Your task to perform on an android device: turn on the 12-hour format for clock Image 0: 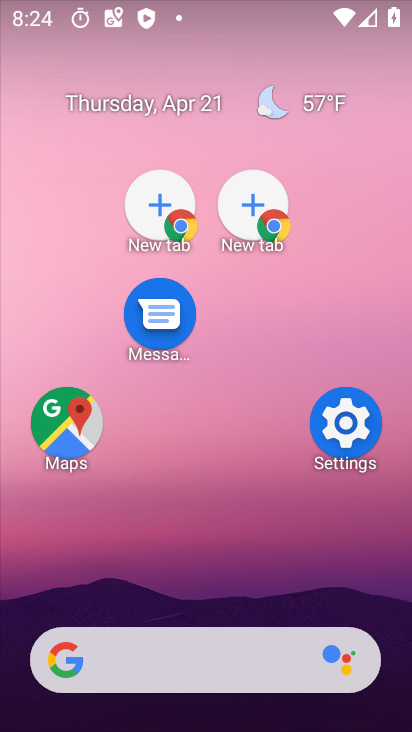
Step 0: drag from (246, 606) to (209, 143)
Your task to perform on an android device: turn on the 12-hour format for clock Image 1: 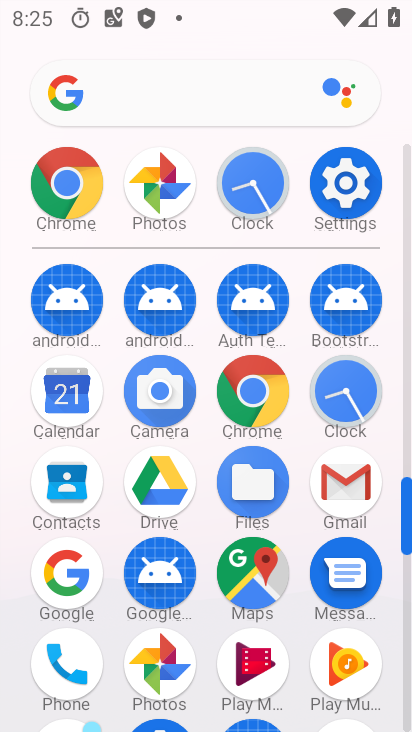
Step 1: click (340, 407)
Your task to perform on an android device: turn on the 12-hour format for clock Image 2: 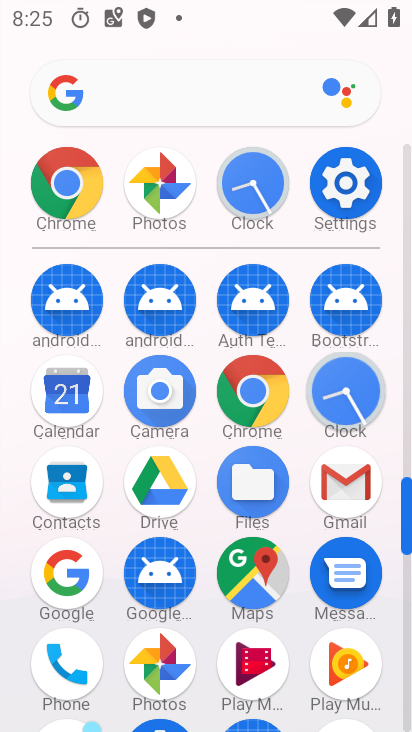
Step 2: click (340, 407)
Your task to perform on an android device: turn on the 12-hour format for clock Image 3: 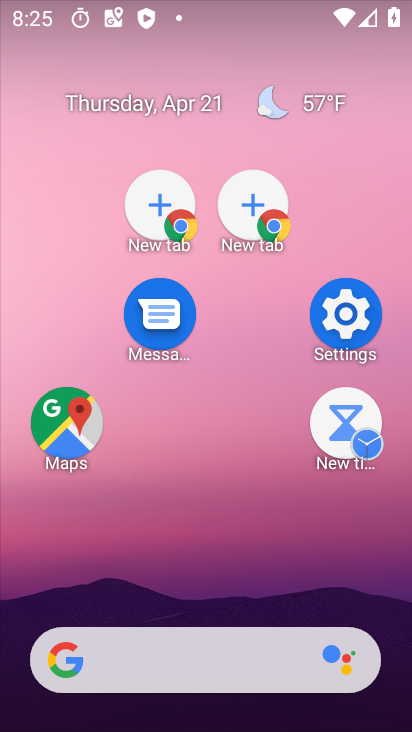
Step 3: drag from (307, 640) to (142, 121)
Your task to perform on an android device: turn on the 12-hour format for clock Image 4: 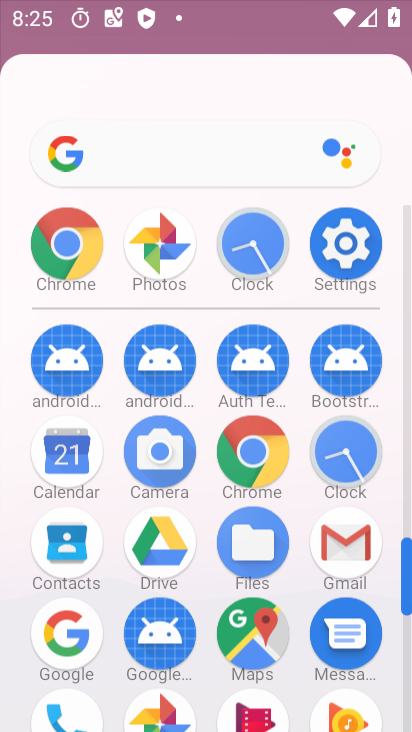
Step 4: drag from (329, 549) to (236, 71)
Your task to perform on an android device: turn on the 12-hour format for clock Image 5: 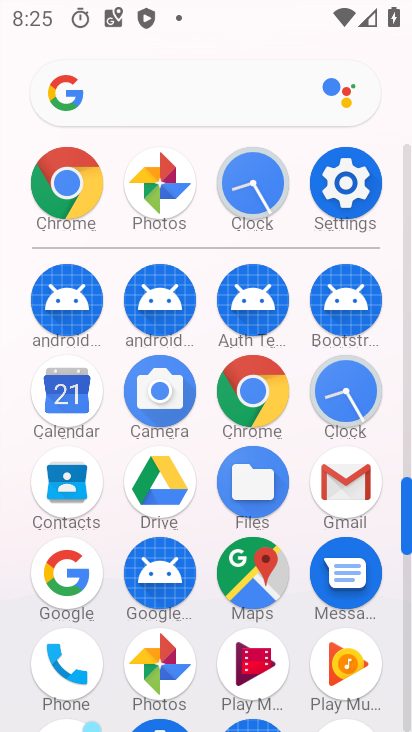
Step 5: click (337, 405)
Your task to perform on an android device: turn on the 12-hour format for clock Image 6: 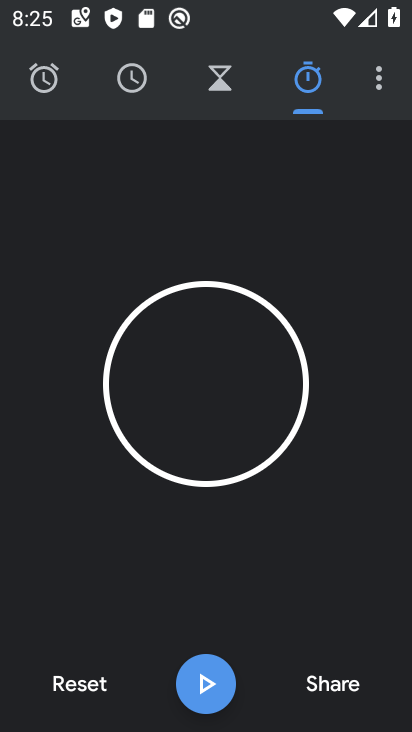
Step 6: drag from (376, 65) to (391, 106)
Your task to perform on an android device: turn on the 12-hour format for clock Image 7: 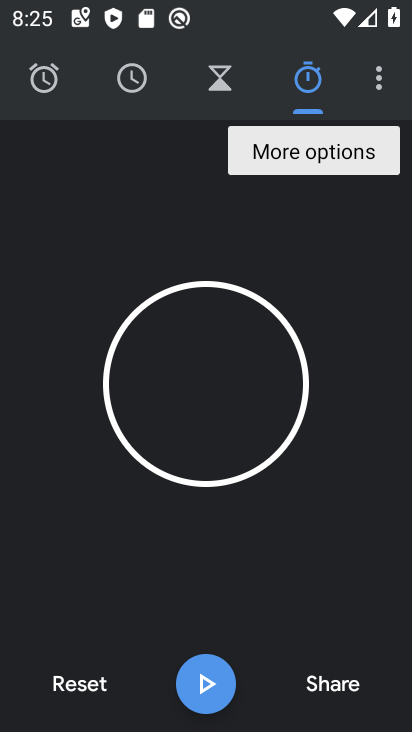
Step 7: click (375, 75)
Your task to perform on an android device: turn on the 12-hour format for clock Image 8: 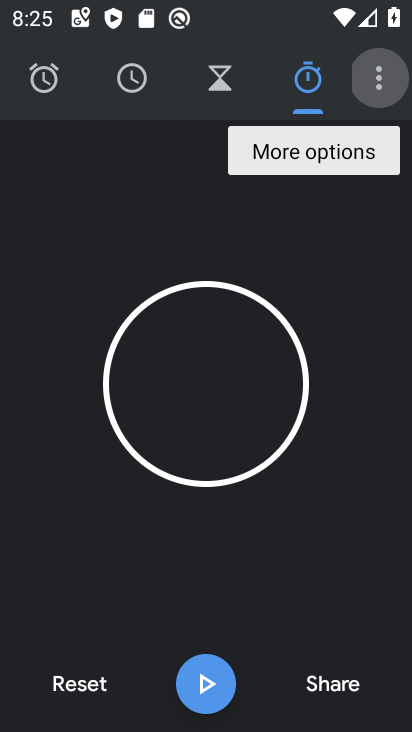
Step 8: click (376, 76)
Your task to perform on an android device: turn on the 12-hour format for clock Image 9: 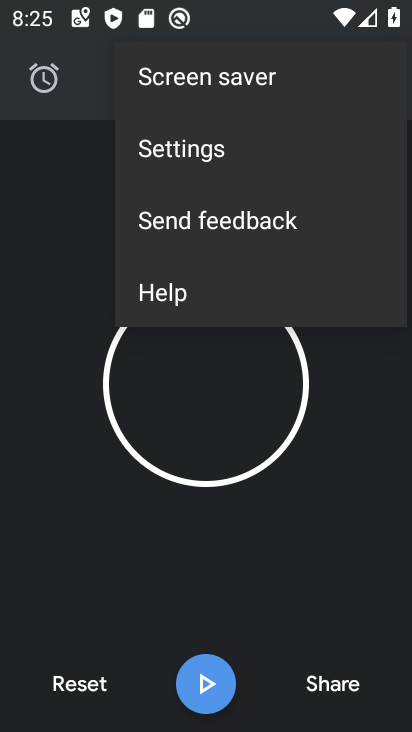
Step 9: click (378, 77)
Your task to perform on an android device: turn on the 12-hour format for clock Image 10: 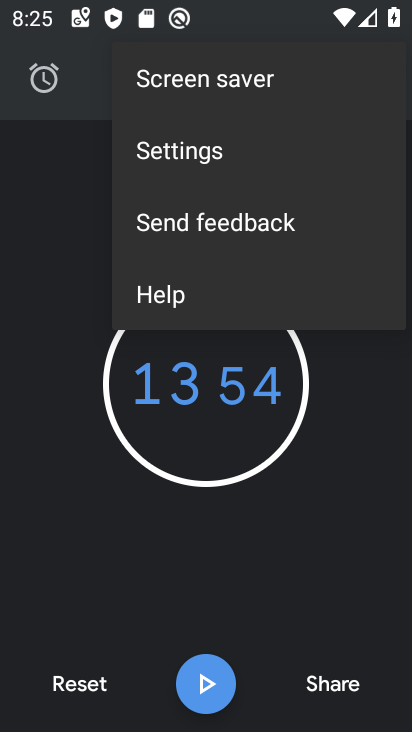
Step 10: click (385, 79)
Your task to perform on an android device: turn on the 12-hour format for clock Image 11: 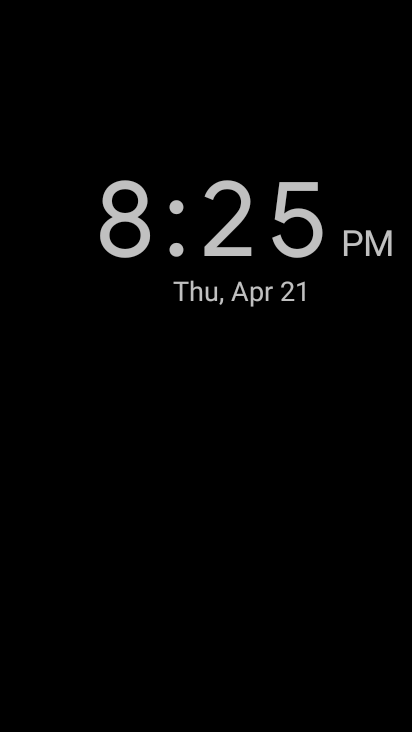
Step 11: press home button
Your task to perform on an android device: turn on the 12-hour format for clock Image 12: 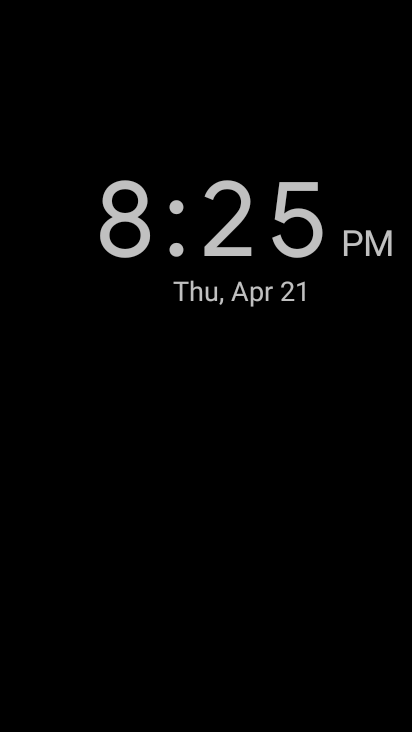
Step 12: press home button
Your task to perform on an android device: turn on the 12-hour format for clock Image 13: 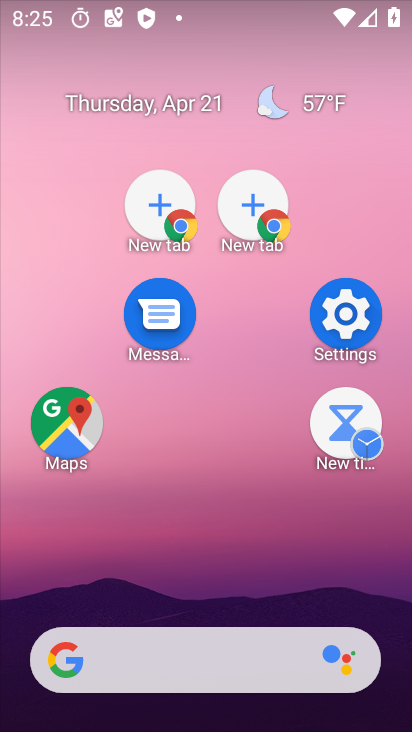
Step 13: drag from (237, 712) to (248, 66)
Your task to perform on an android device: turn on the 12-hour format for clock Image 14: 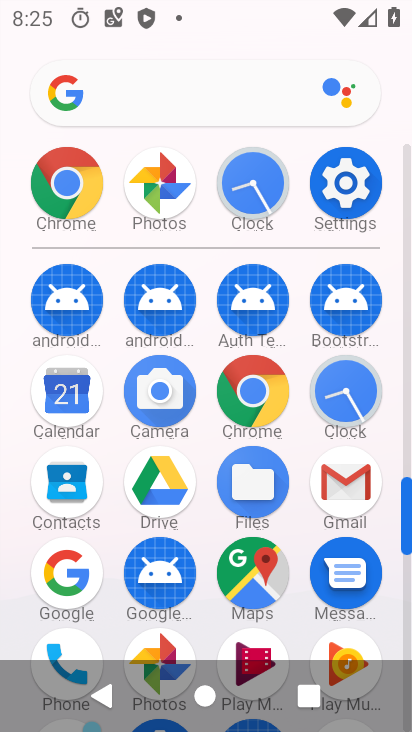
Step 14: click (337, 388)
Your task to perform on an android device: turn on the 12-hour format for clock Image 15: 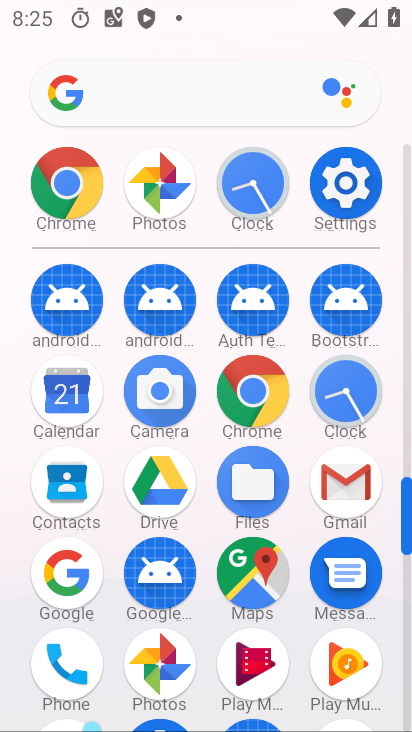
Step 15: click (337, 388)
Your task to perform on an android device: turn on the 12-hour format for clock Image 16: 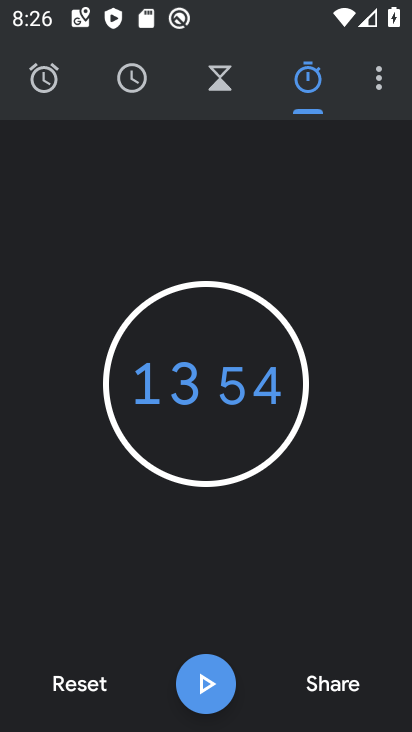
Step 16: drag from (375, 86) to (168, 157)
Your task to perform on an android device: turn on the 12-hour format for clock Image 17: 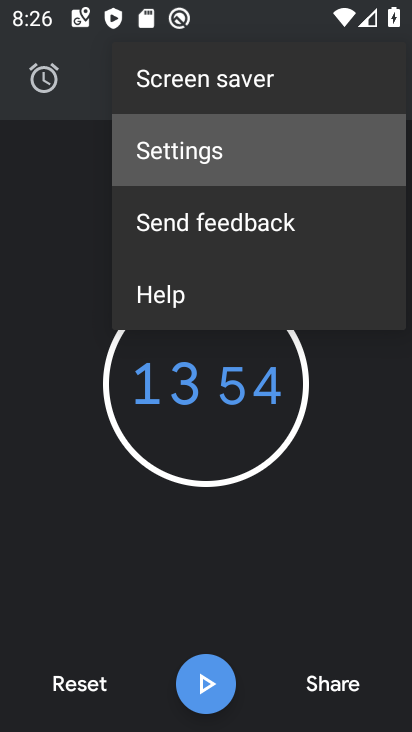
Step 17: click (168, 157)
Your task to perform on an android device: turn on the 12-hour format for clock Image 18: 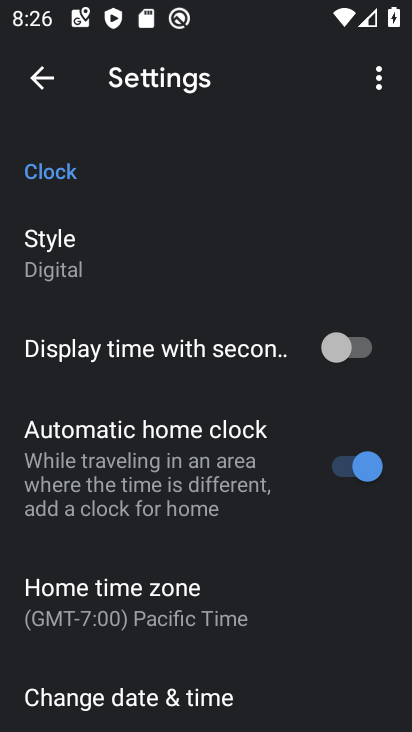
Step 18: drag from (195, 514) to (113, 149)
Your task to perform on an android device: turn on the 12-hour format for clock Image 19: 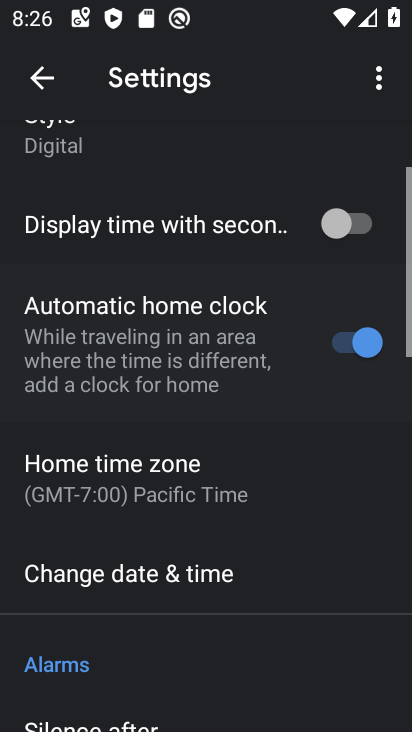
Step 19: drag from (164, 479) to (149, 155)
Your task to perform on an android device: turn on the 12-hour format for clock Image 20: 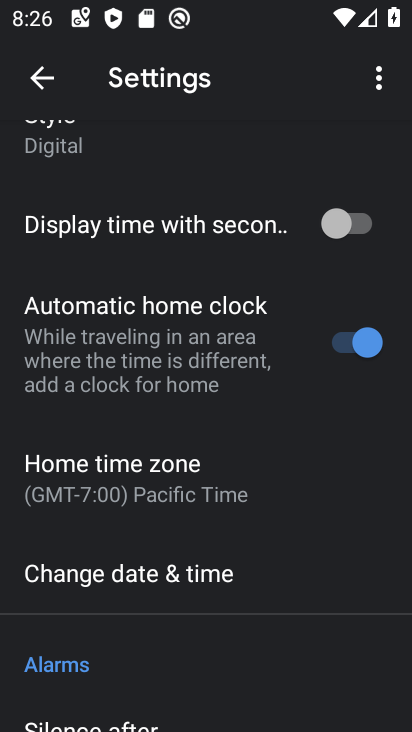
Step 20: drag from (171, 390) to (242, 543)
Your task to perform on an android device: turn on the 12-hour format for clock Image 21: 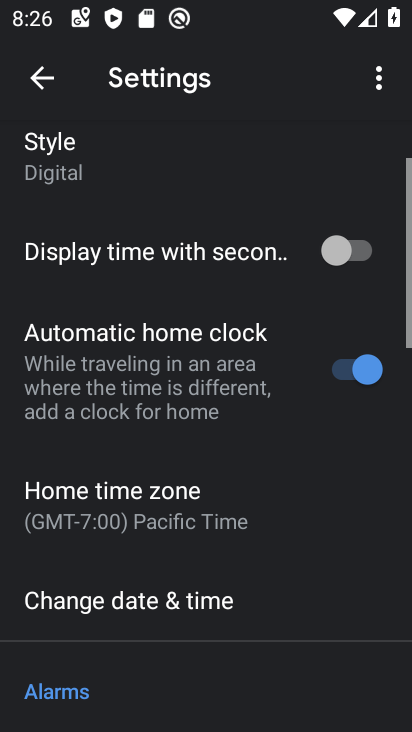
Step 21: drag from (196, 478) to (209, 607)
Your task to perform on an android device: turn on the 12-hour format for clock Image 22: 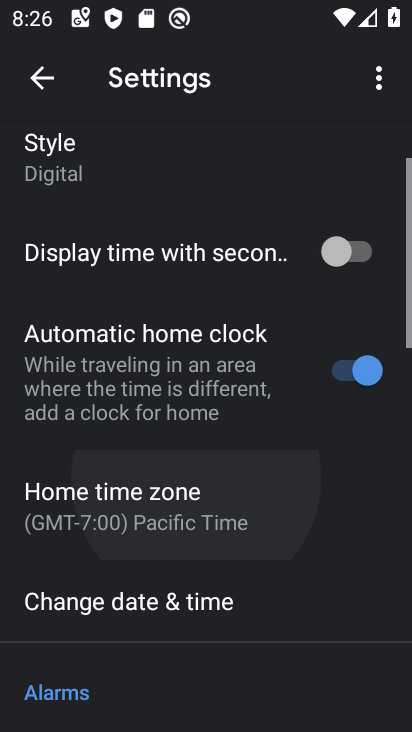
Step 22: drag from (174, 301) to (255, 651)
Your task to perform on an android device: turn on the 12-hour format for clock Image 23: 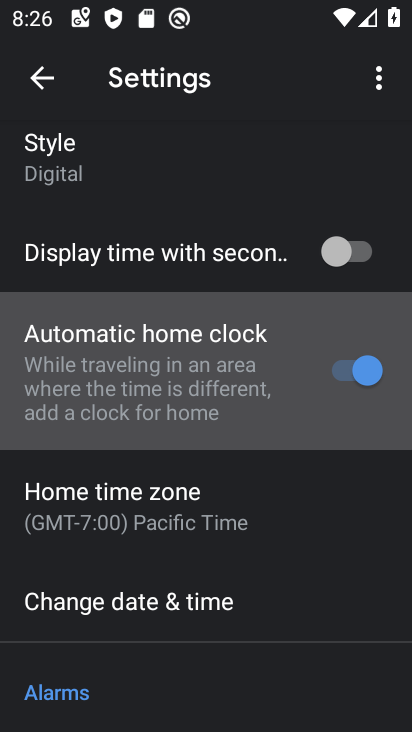
Step 23: drag from (246, 464) to (245, 624)
Your task to perform on an android device: turn on the 12-hour format for clock Image 24: 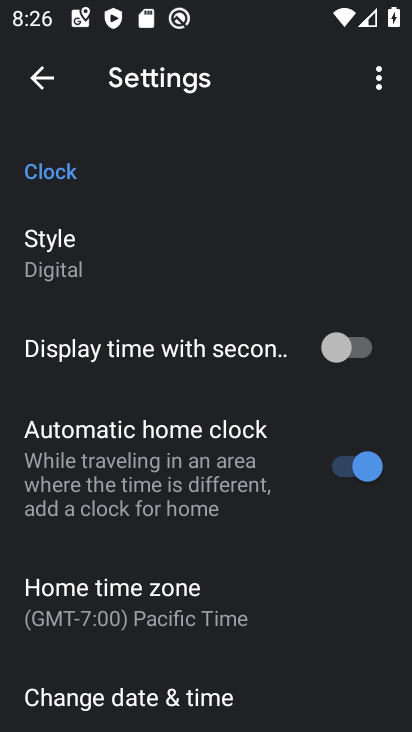
Step 24: drag from (193, 485) to (190, 76)
Your task to perform on an android device: turn on the 12-hour format for clock Image 25: 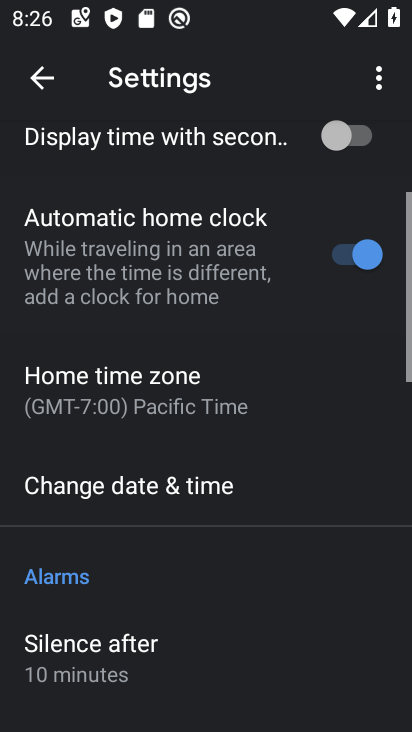
Step 25: drag from (102, 478) to (146, 166)
Your task to perform on an android device: turn on the 12-hour format for clock Image 26: 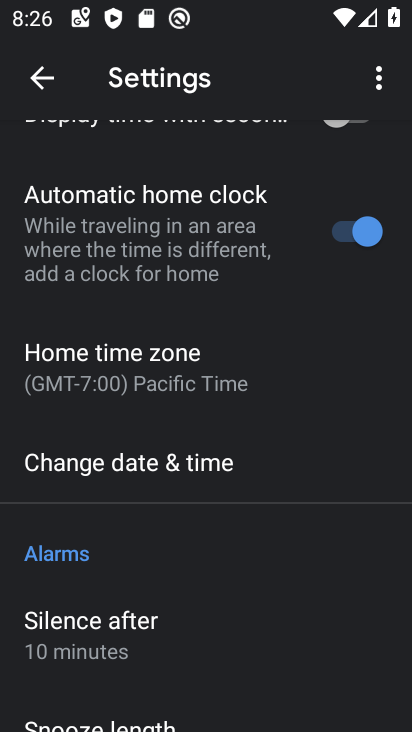
Step 26: click (127, 460)
Your task to perform on an android device: turn on the 12-hour format for clock Image 27: 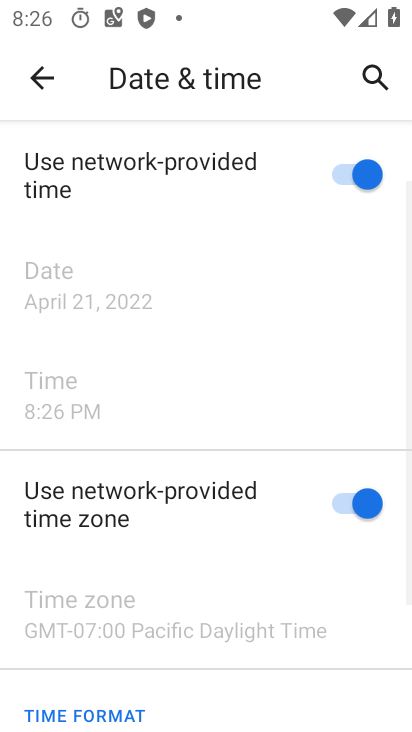
Step 27: drag from (183, 546) to (172, 197)
Your task to perform on an android device: turn on the 12-hour format for clock Image 28: 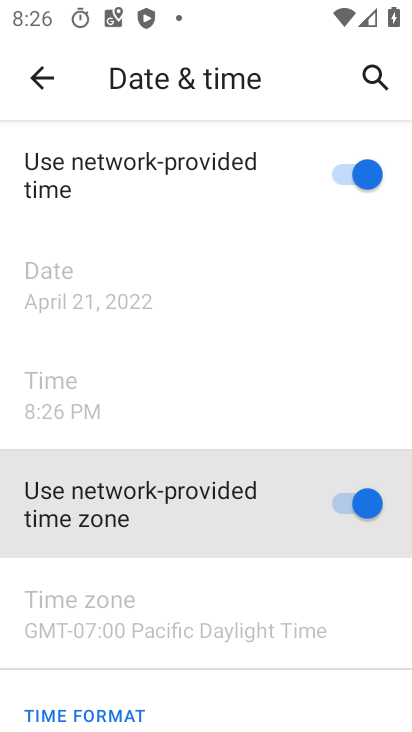
Step 28: drag from (186, 441) to (153, 134)
Your task to perform on an android device: turn on the 12-hour format for clock Image 29: 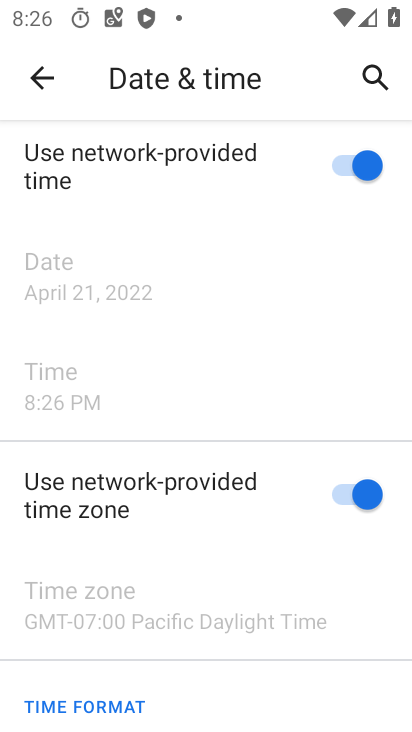
Step 29: drag from (168, 360) to (181, 109)
Your task to perform on an android device: turn on the 12-hour format for clock Image 30: 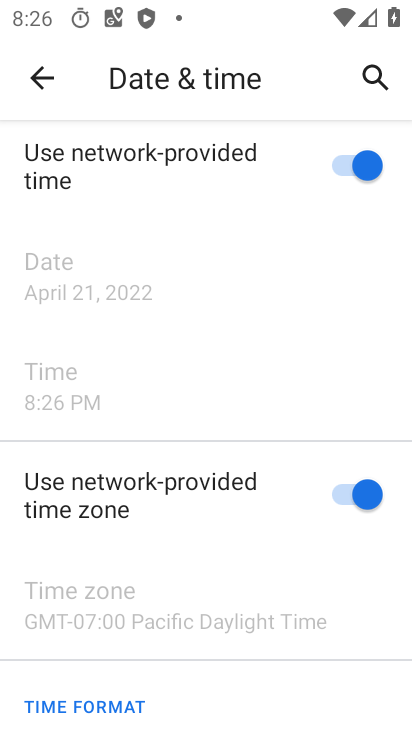
Step 30: click (191, 271)
Your task to perform on an android device: turn on the 12-hour format for clock Image 31: 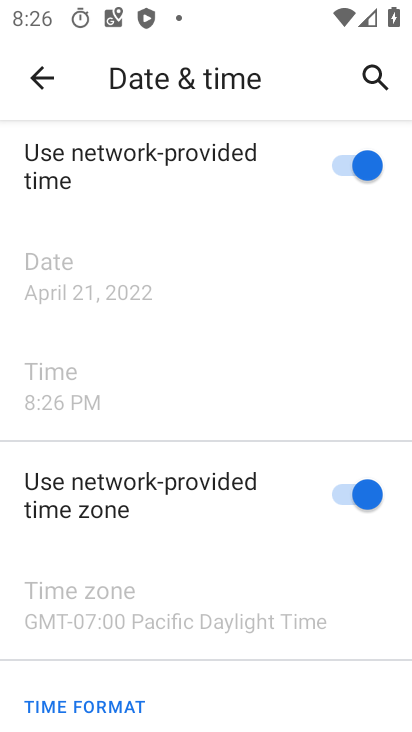
Step 31: task complete